Your task to perform on an android device: Open Google Maps and go to "Timeline" Image 0: 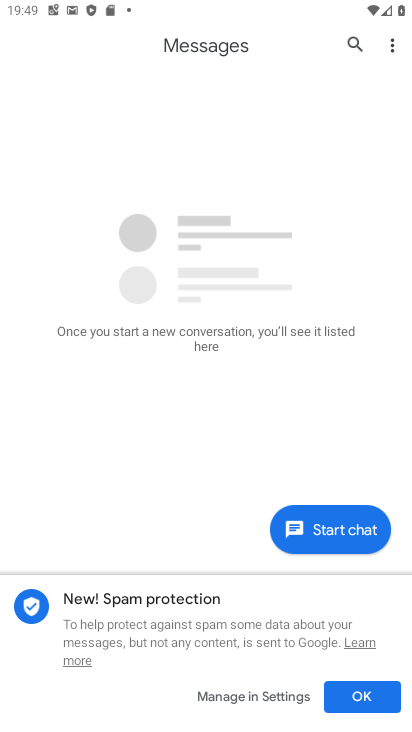
Step 0: press home button
Your task to perform on an android device: Open Google Maps and go to "Timeline" Image 1: 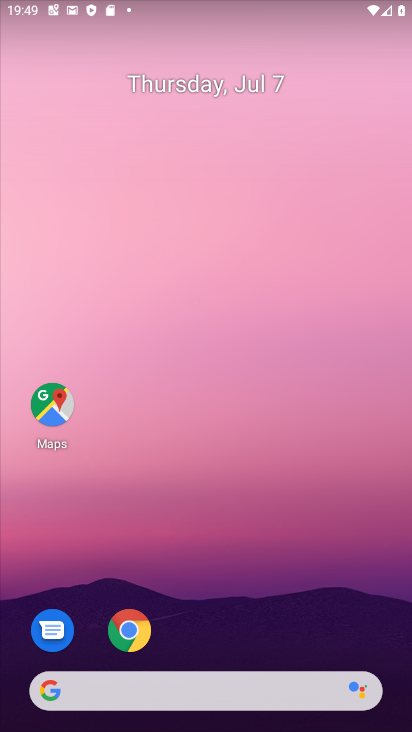
Step 1: click (66, 410)
Your task to perform on an android device: Open Google Maps and go to "Timeline" Image 2: 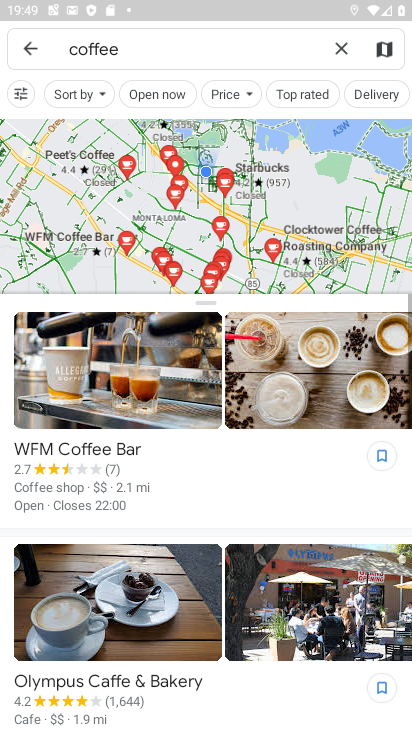
Step 2: click (31, 47)
Your task to perform on an android device: Open Google Maps and go to "Timeline" Image 3: 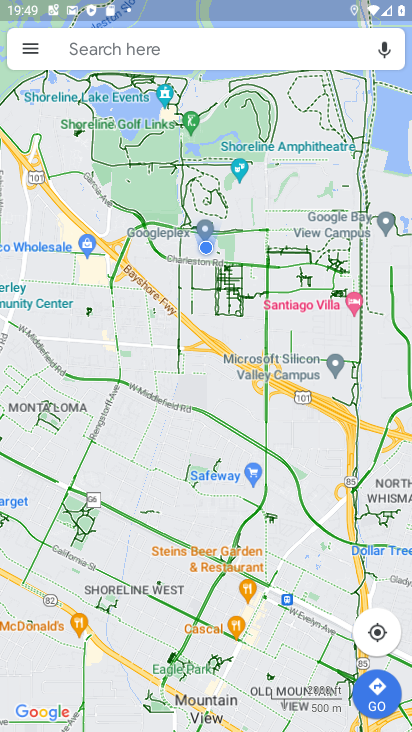
Step 3: click (29, 47)
Your task to perform on an android device: Open Google Maps and go to "Timeline" Image 4: 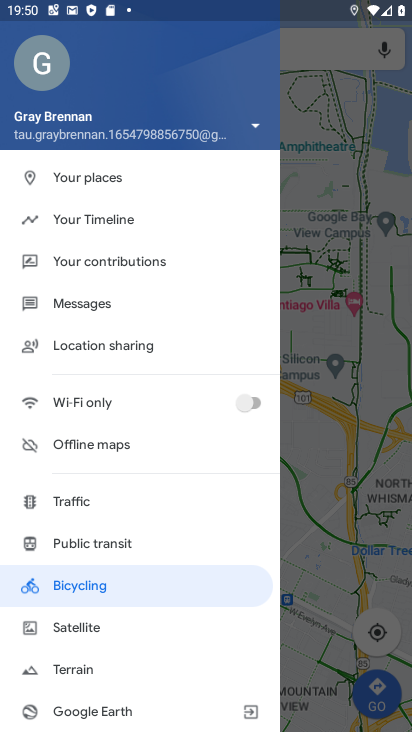
Step 4: click (69, 225)
Your task to perform on an android device: Open Google Maps and go to "Timeline" Image 5: 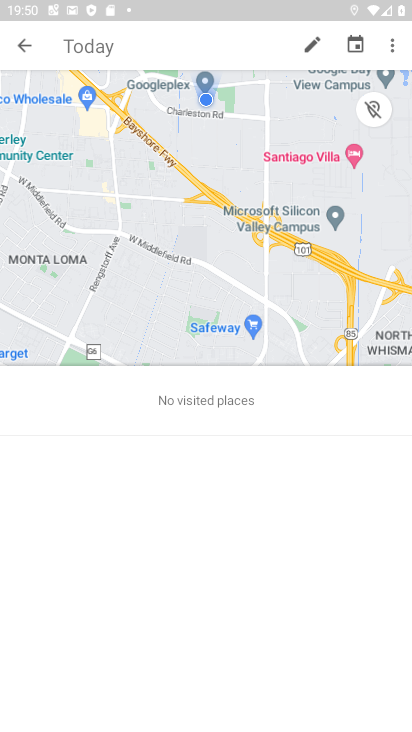
Step 5: task complete